Your task to perform on an android device: Open my contact list Image 0: 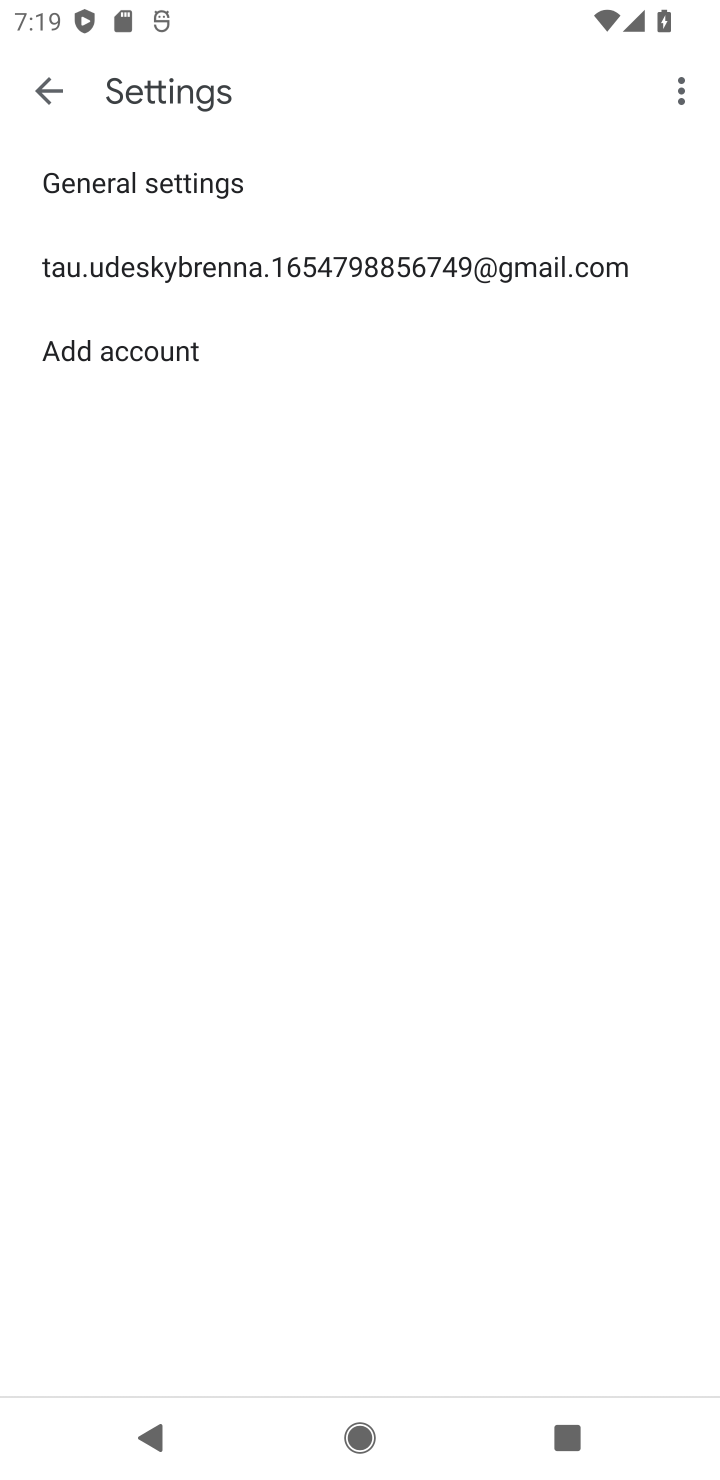
Step 0: press home button
Your task to perform on an android device: Open my contact list Image 1: 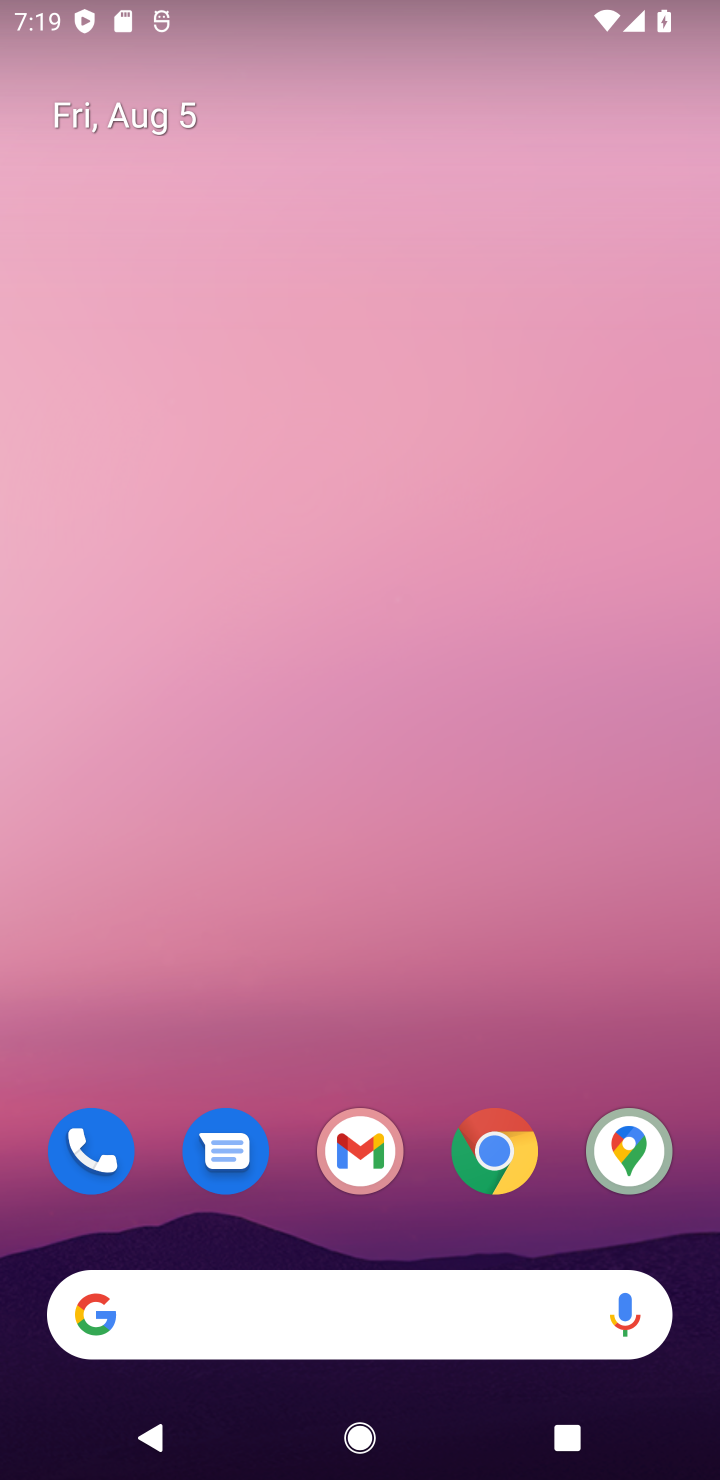
Step 1: drag from (355, 1258) to (703, 689)
Your task to perform on an android device: Open my contact list Image 2: 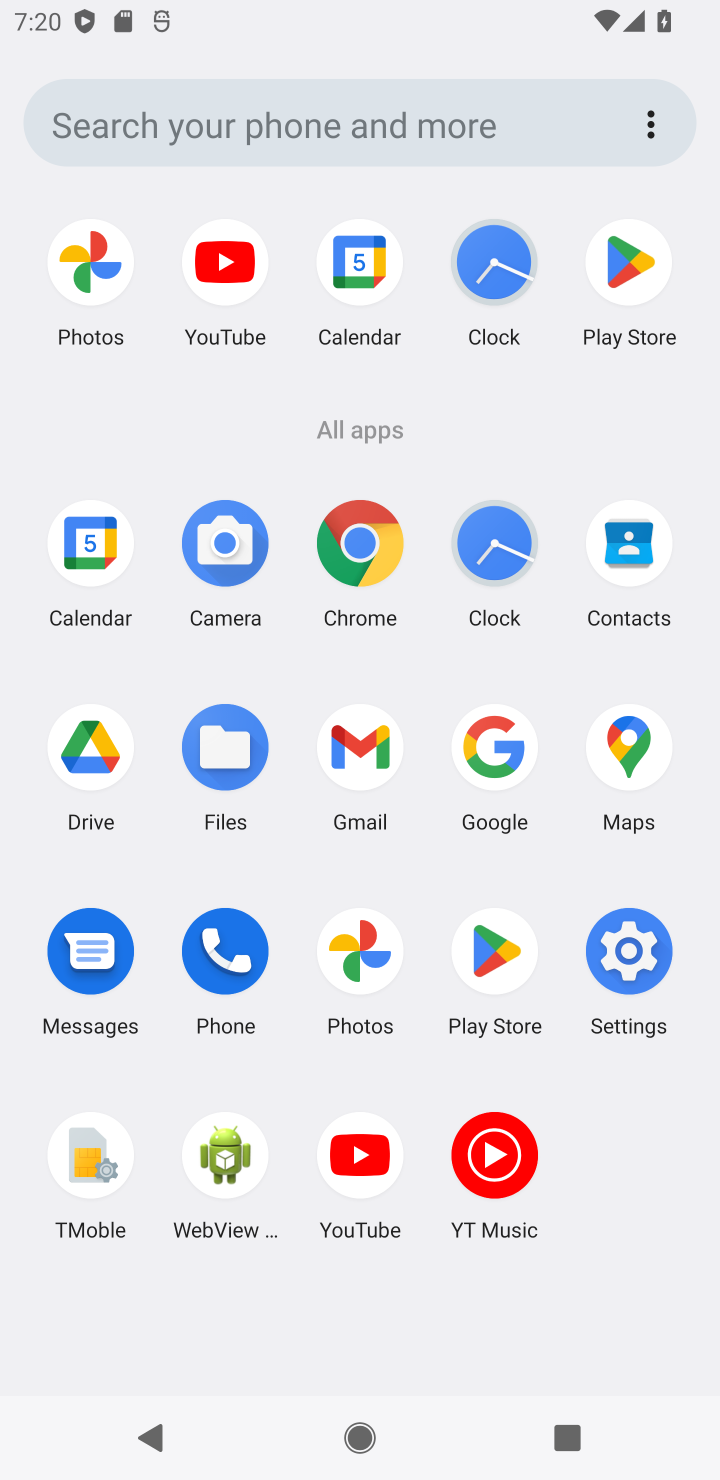
Step 2: click (650, 534)
Your task to perform on an android device: Open my contact list Image 3: 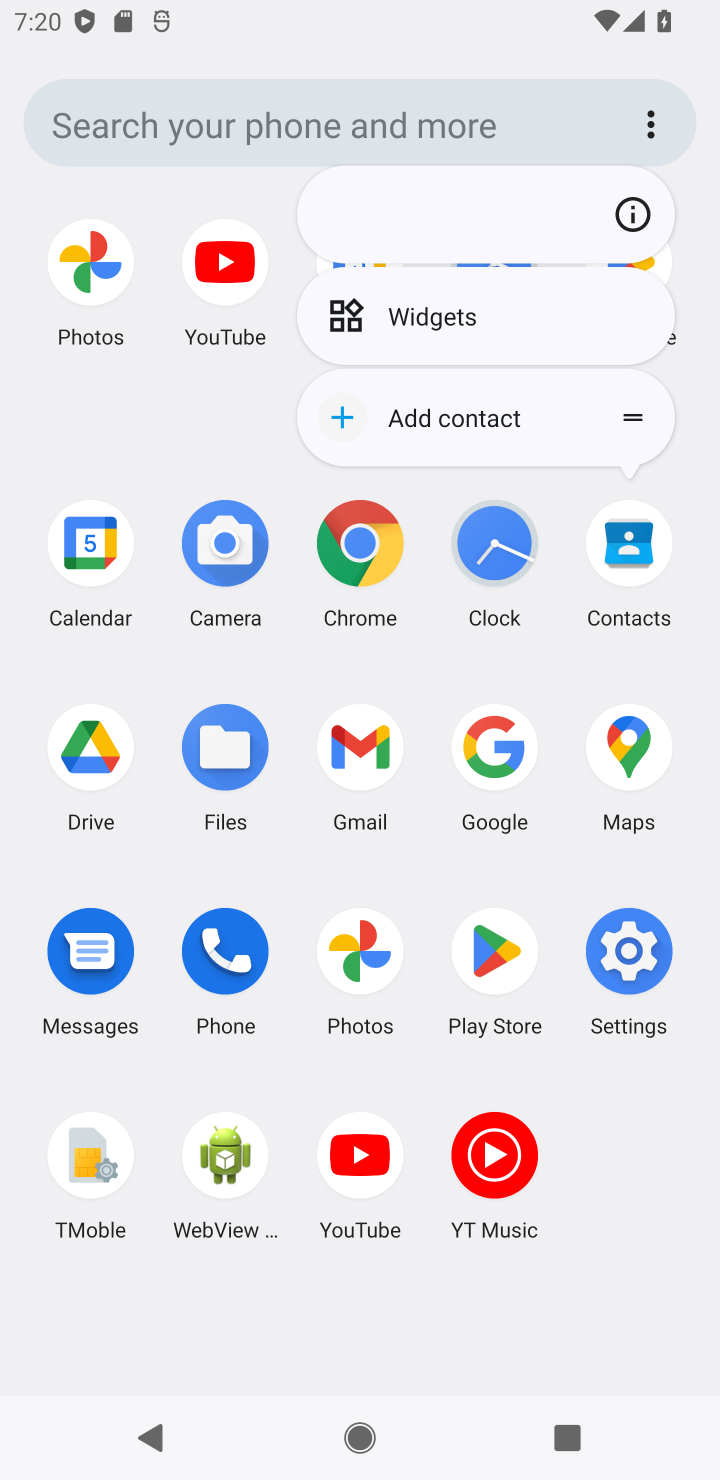
Step 3: click (651, 586)
Your task to perform on an android device: Open my contact list Image 4: 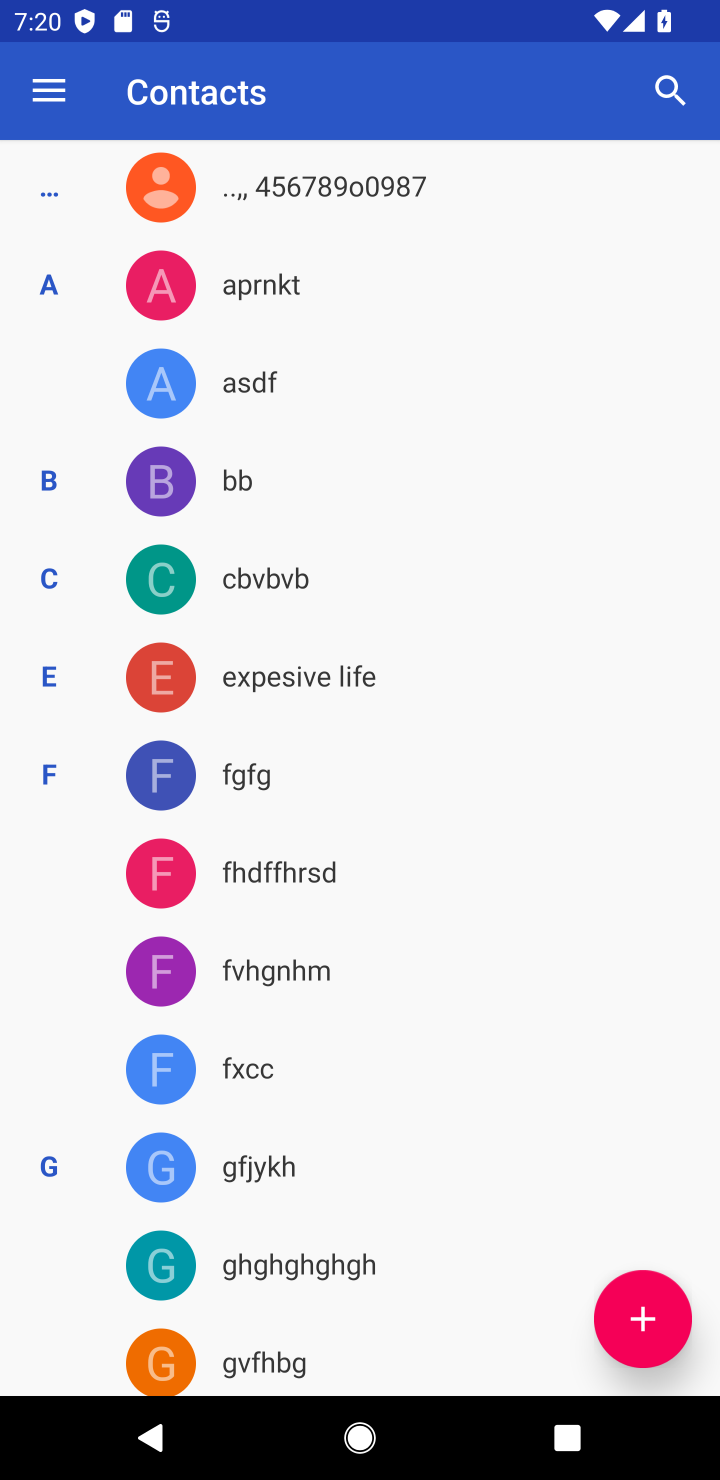
Step 4: task complete